Your task to perform on an android device: allow notifications from all sites in the chrome app Image 0: 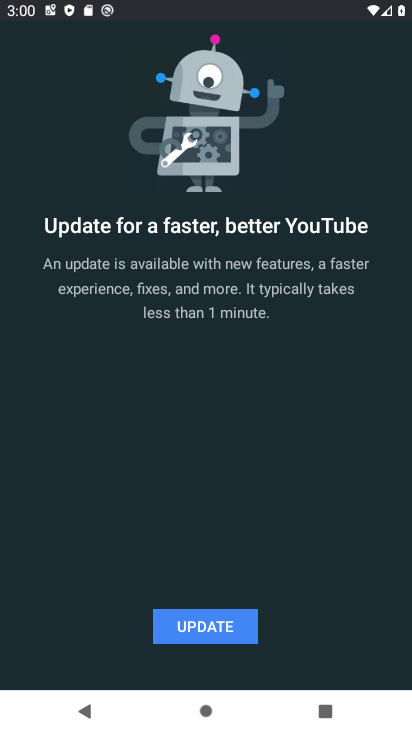
Step 0: press back button
Your task to perform on an android device: allow notifications from all sites in the chrome app Image 1: 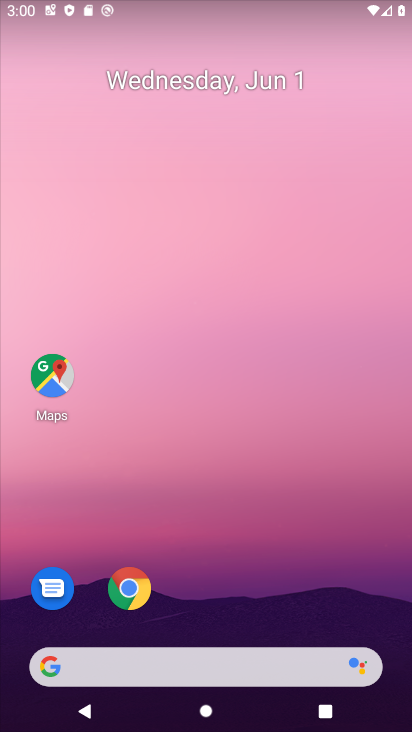
Step 1: click (121, 591)
Your task to perform on an android device: allow notifications from all sites in the chrome app Image 2: 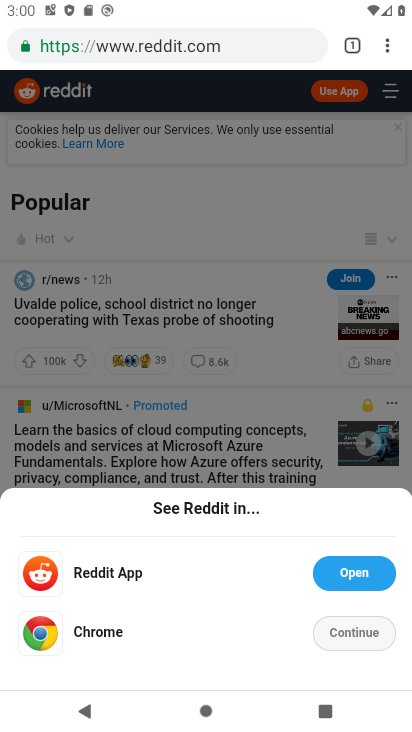
Step 2: click (379, 48)
Your task to perform on an android device: allow notifications from all sites in the chrome app Image 3: 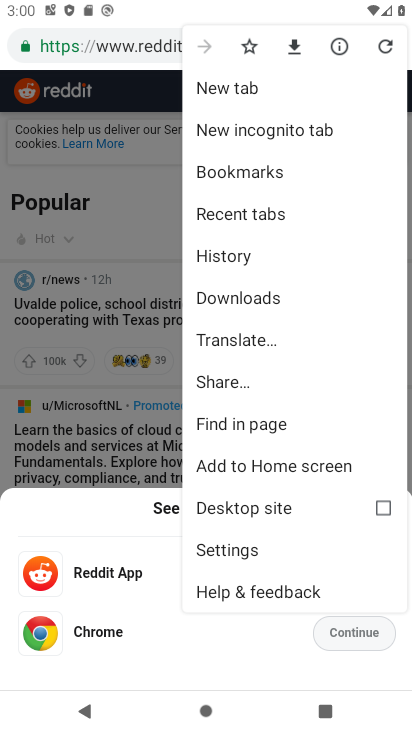
Step 3: click (295, 543)
Your task to perform on an android device: allow notifications from all sites in the chrome app Image 4: 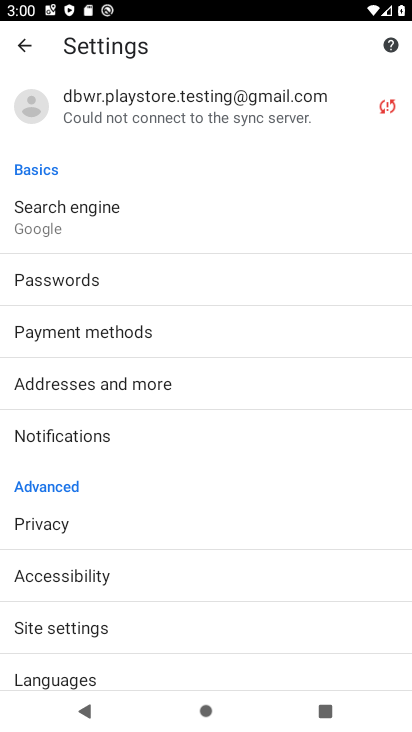
Step 4: click (81, 435)
Your task to perform on an android device: allow notifications from all sites in the chrome app Image 5: 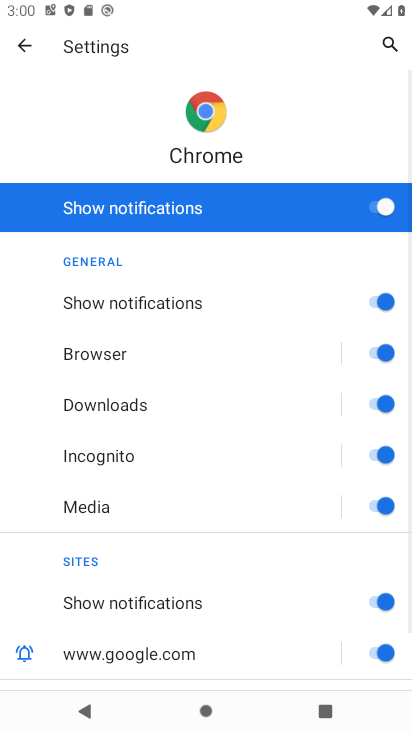
Step 5: task complete